Your task to perform on an android device: change notification settings in the gmail app Image 0: 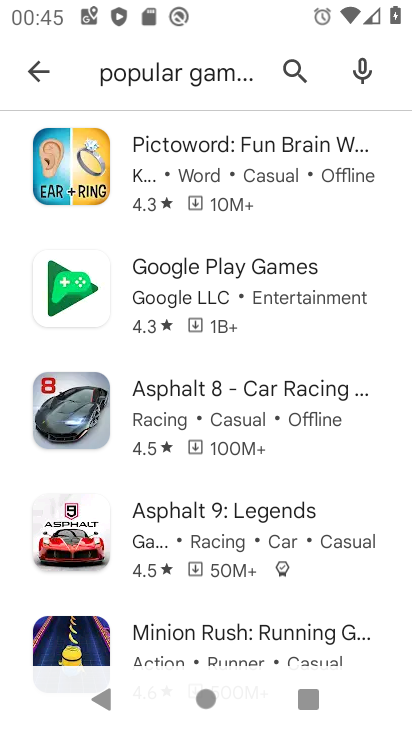
Step 0: press home button
Your task to perform on an android device: change notification settings in the gmail app Image 1: 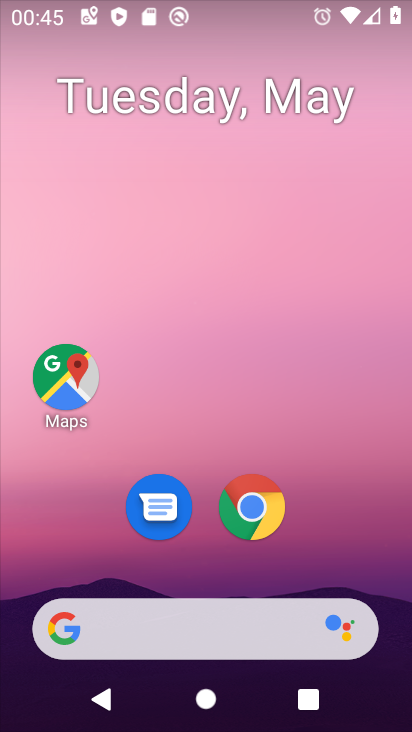
Step 1: drag from (210, 597) to (192, 271)
Your task to perform on an android device: change notification settings in the gmail app Image 2: 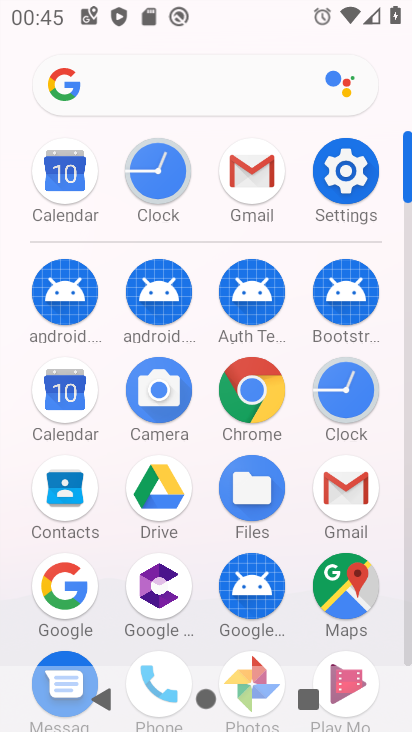
Step 2: click (328, 497)
Your task to perform on an android device: change notification settings in the gmail app Image 3: 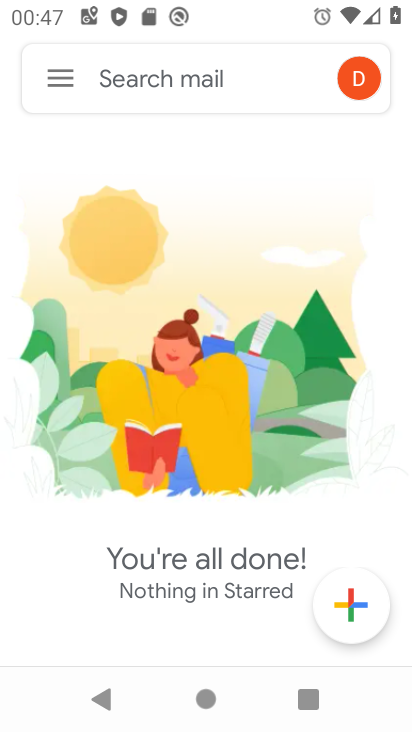
Step 3: click (62, 78)
Your task to perform on an android device: change notification settings in the gmail app Image 4: 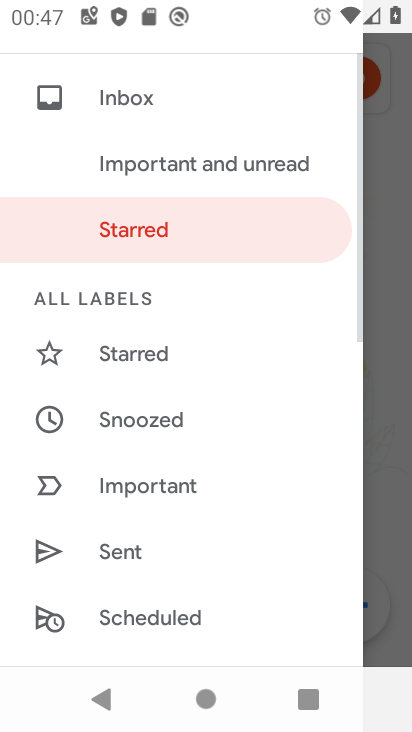
Step 4: drag from (159, 616) to (184, 308)
Your task to perform on an android device: change notification settings in the gmail app Image 5: 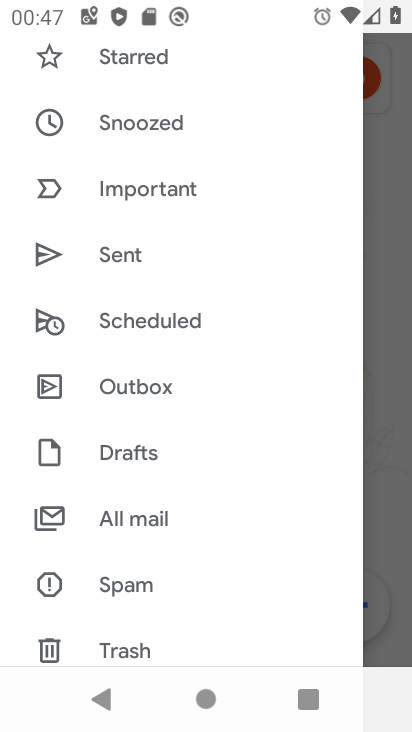
Step 5: drag from (160, 616) to (176, 366)
Your task to perform on an android device: change notification settings in the gmail app Image 6: 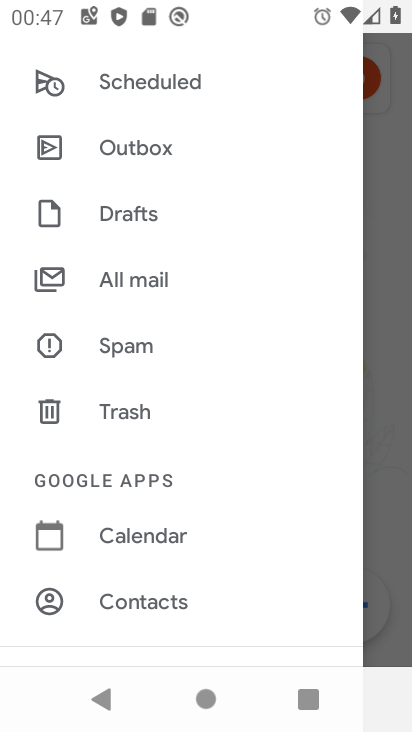
Step 6: drag from (132, 439) to (112, 208)
Your task to perform on an android device: change notification settings in the gmail app Image 7: 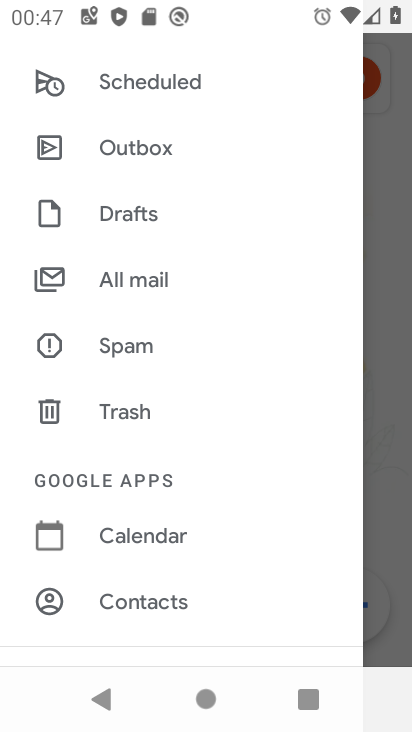
Step 7: drag from (155, 609) to (163, 326)
Your task to perform on an android device: change notification settings in the gmail app Image 8: 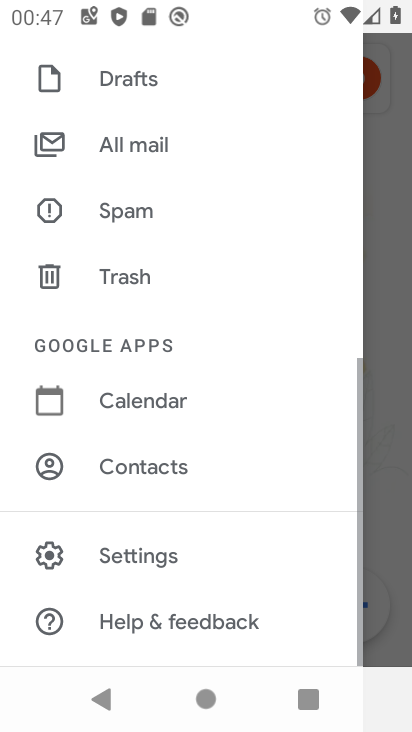
Step 8: click (144, 565)
Your task to perform on an android device: change notification settings in the gmail app Image 9: 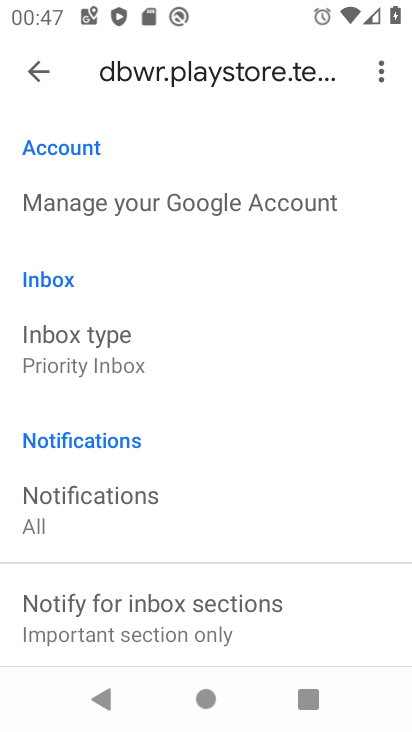
Step 9: click (93, 504)
Your task to perform on an android device: change notification settings in the gmail app Image 10: 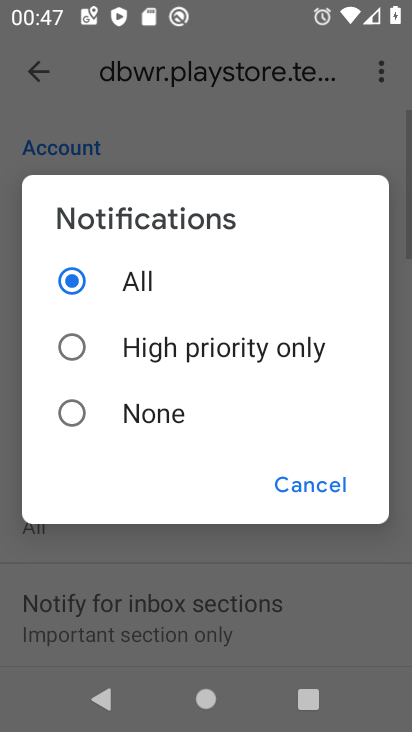
Step 10: click (135, 340)
Your task to perform on an android device: change notification settings in the gmail app Image 11: 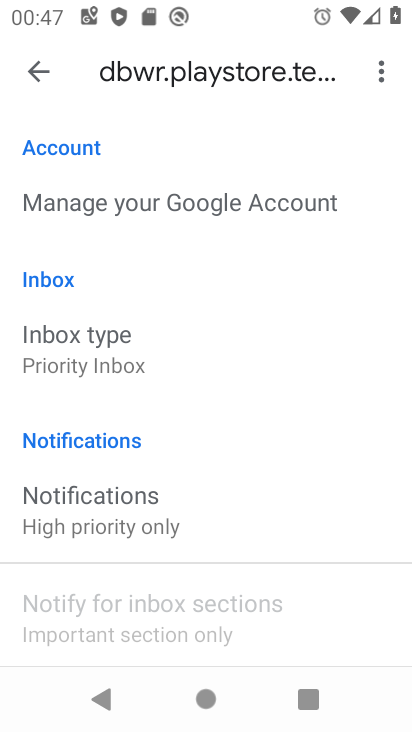
Step 11: task complete